Your task to perform on an android device: What's on my calendar today? Image 0: 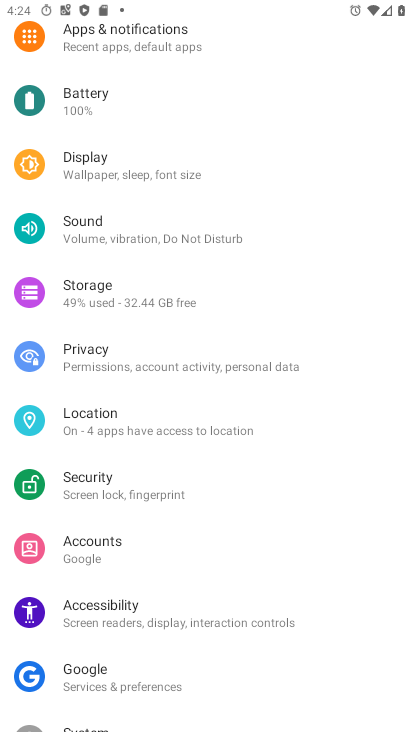
Step 0: press home button
Your task to perform on an android device: What's on my calendar today? Image 1: 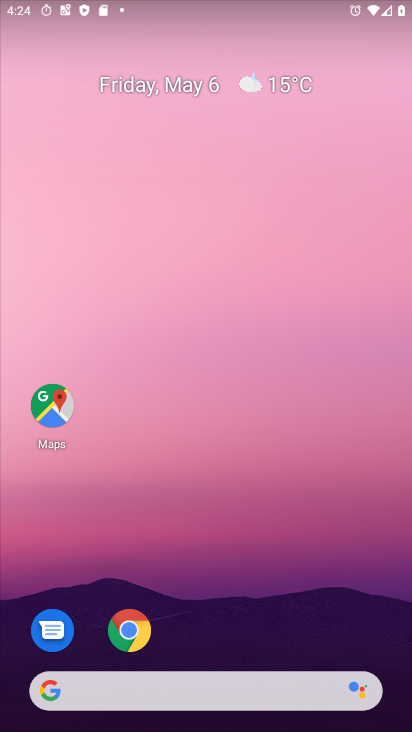
Step 1: click (164, 90)
Your task to perform on an android device: What's on my calendar today? Image 2: 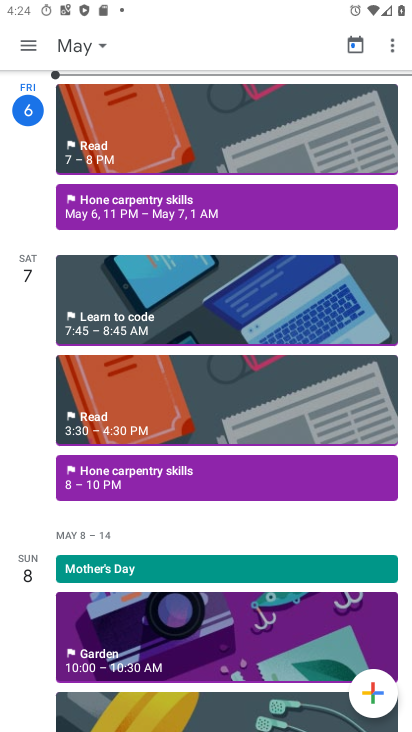
Step 2: task complete